Your task to perform on an android device: find photos in the google photos app Image 0: 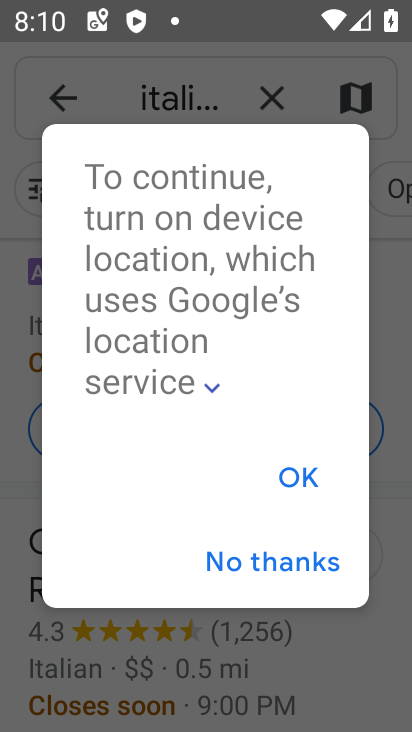
Step 0: press home button
Your task to perform on an android device: find photos in the google photos app Image 1: 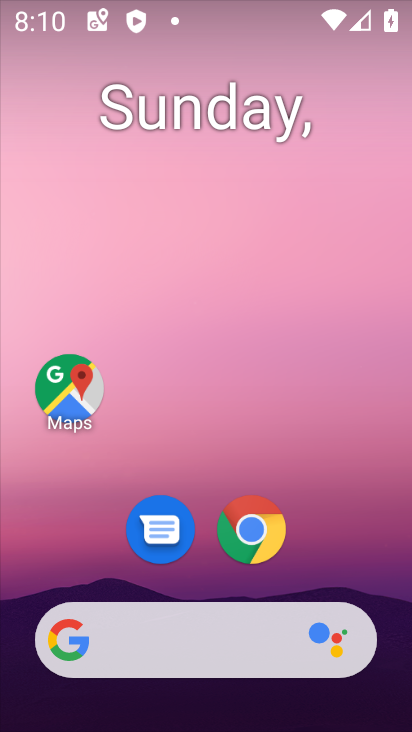
Step 1: drag from (383, 543) to (369, 89)
Your task to perform on an android device: find photos in the google photos app Image 2: 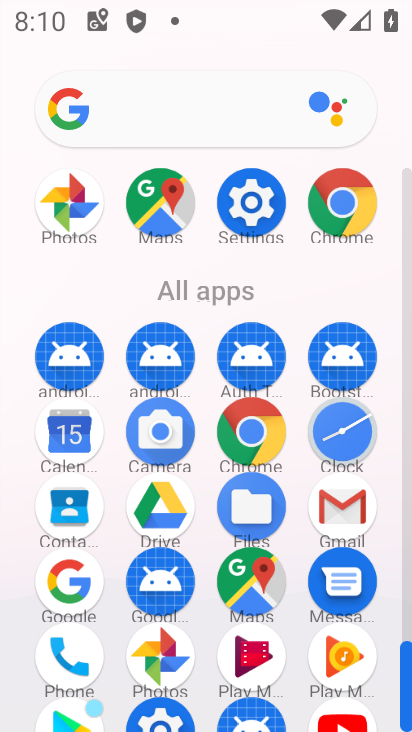
Step 2: click (159, 658)
Your task to perform on an android device: find photos in the google photos app Image 3: 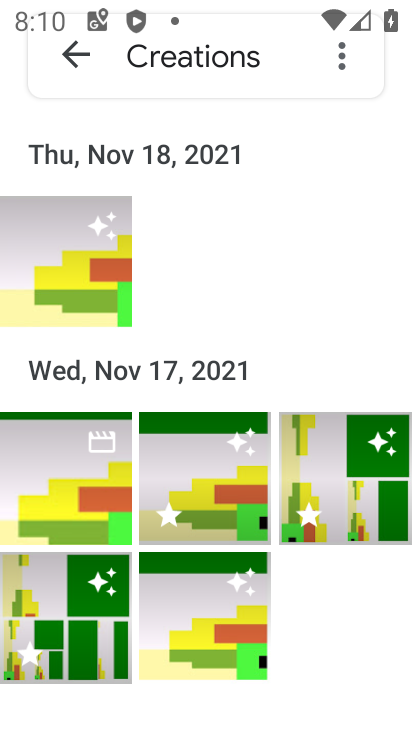
Step 3: task complete